Your task to perform on an android device: What's the US dollar exchange rateagainst the Swiss Franc? Image 0: 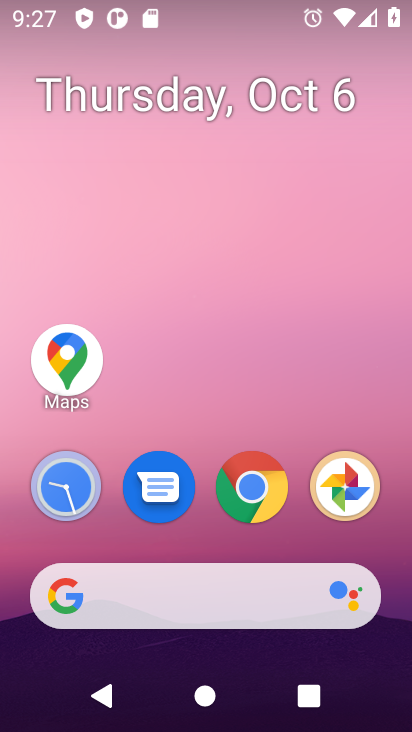
Step 0: drag from (230, 515) to (377, 138)
Your task to perform on an android device: What's the US dollar exchange rateagainst the Swiss Franc? Image 1: 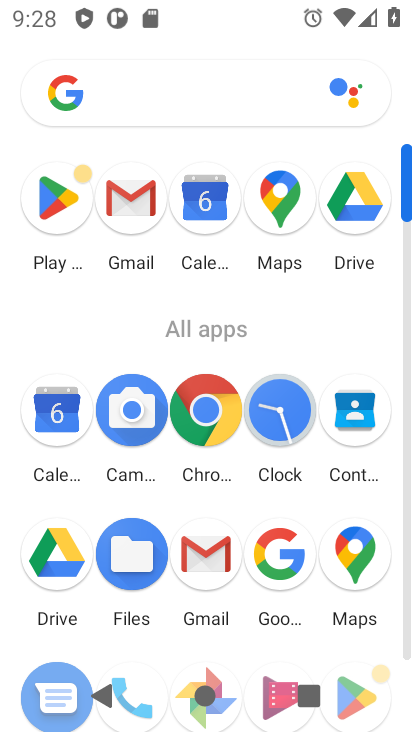
Step 1: click (205, 407)
Your task to perform on an android device: What's the US dollar exchange rateagainst the Swiss Franc? Image 2: 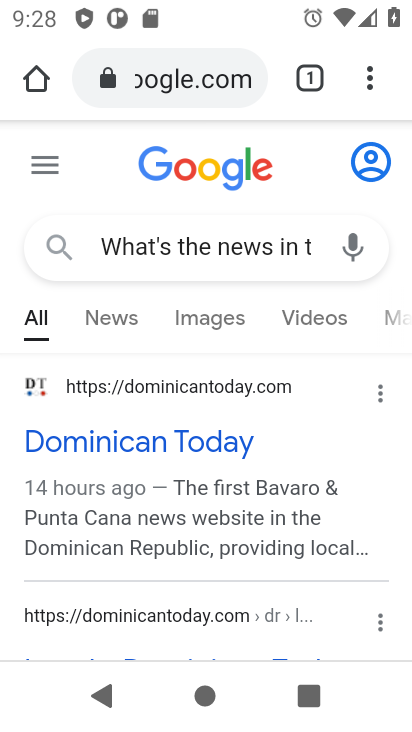
Step 2: click (196, 74)
Your task to perform on an android device: What's the US dollar exchange rateagainst the Swiss Franc? Image 3: 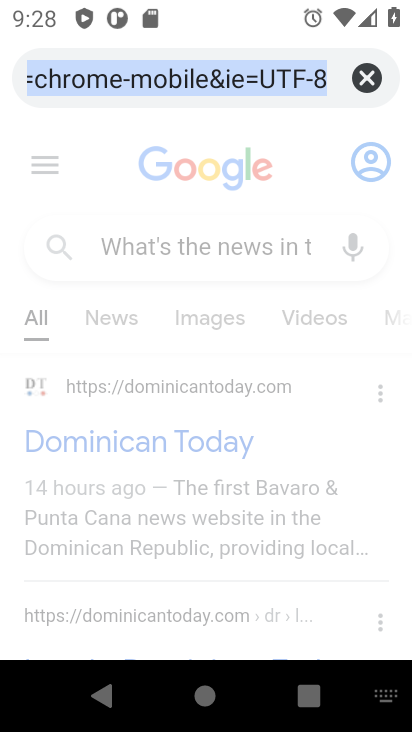
Step 3: click (357, 78)
Your task to perform on an android device: What's the US dollar exchange rateagainst the Swiss Franc? Image 4: 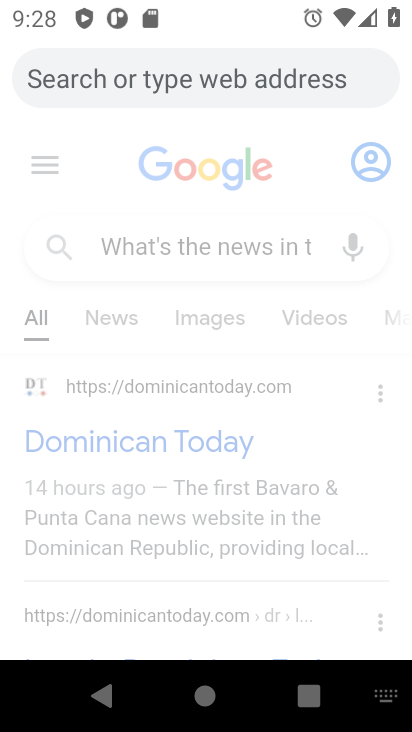
Step 4: click (51, 83)
Your task to perform on an android device: What's the US dollar exchange rateagainst the Swiss Franc? Image 5: 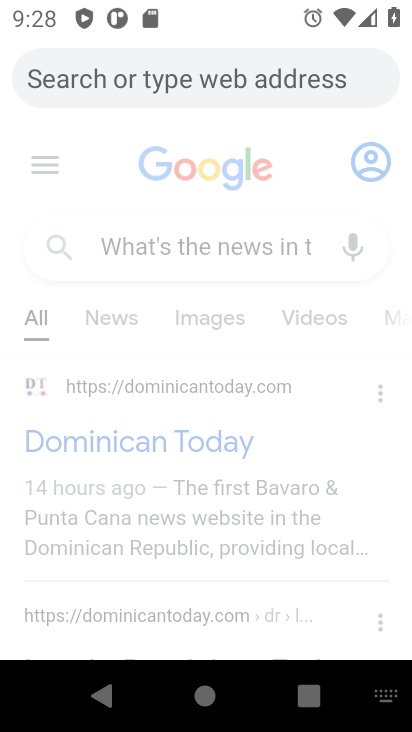
Step 5: type "What's the US dollar exchange rateagainst the Swiss Franc?"
Your task to perform on an android device: What's the US dollar exchange rateagainst the Swiss Franc? Image 6: 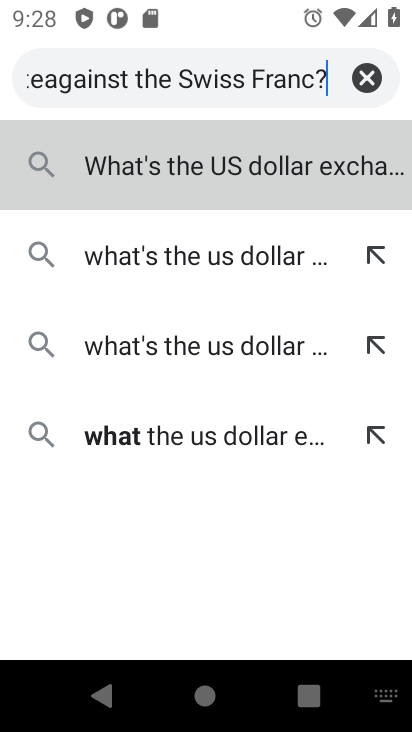
Step 6: press enter
Your task to perform on an android device: What's the US dollar exchange rateagainst the Swiss Franc? Image 7: 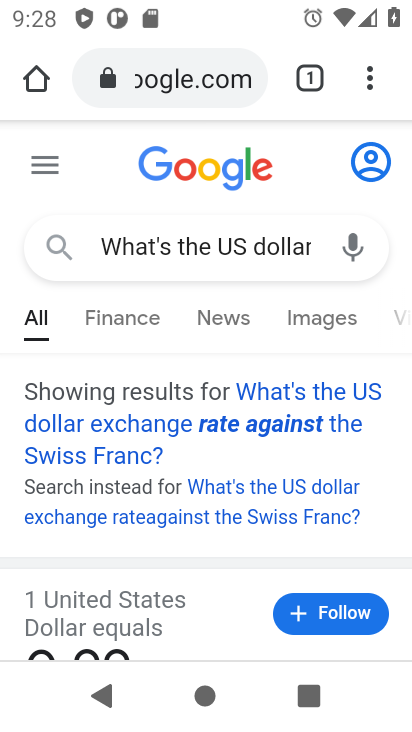
Step 7: task complete